Your task to perform on an android device: Go to calendar. Show me events next week Image 0: 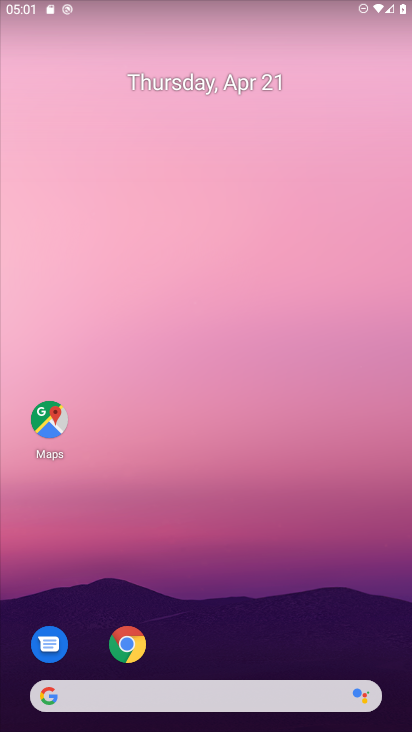
Step 0: drag from (264, 617) to (337, 189)
Your task to perform on an android device: Go to calendar. Show me events next week Image 1: 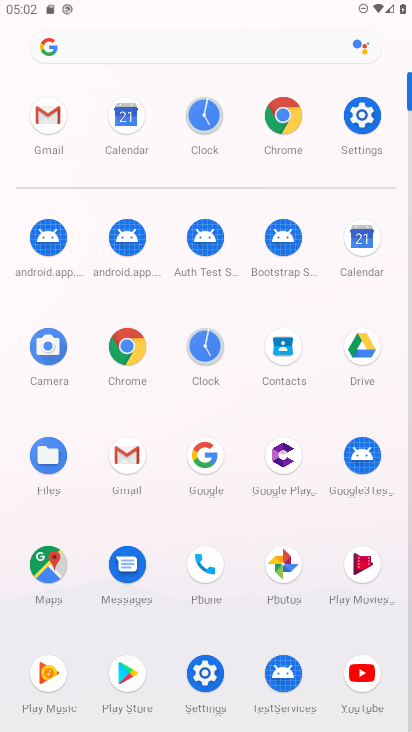
Step 1: click (367, 243)
Your task to perform on an android device: Go to calendar. Show me events next week Image 2: 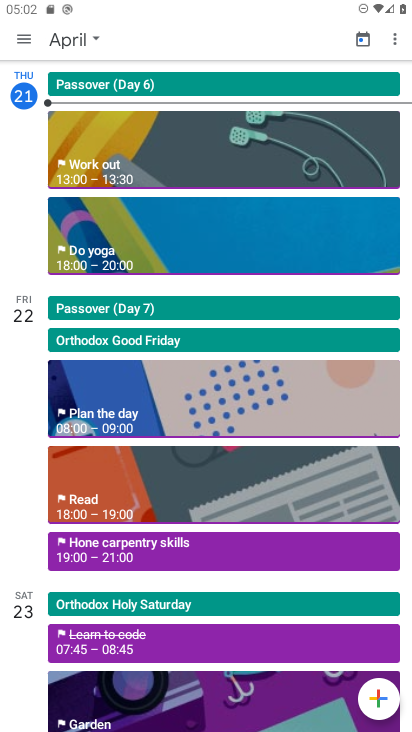
Step 2: click (74, 42)
Your task to perform on an android device: Go to calendar. Show me events next week Image 3: 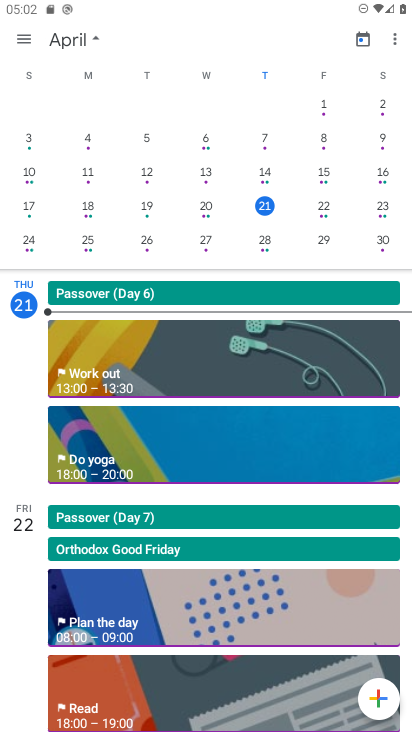
Step 3: click (262, 245)
Your task to perform on an android device: Go to calendar. Show me events next week Image 4: 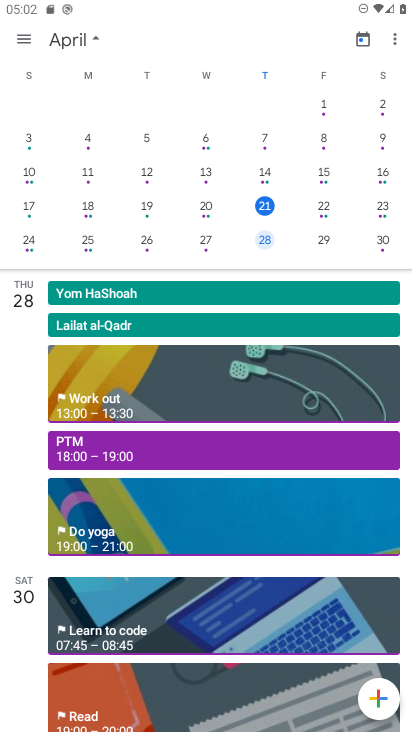
Step 4: task complete